Your task to perform on an android device: Go to calendar. Show me events next week Image 0: 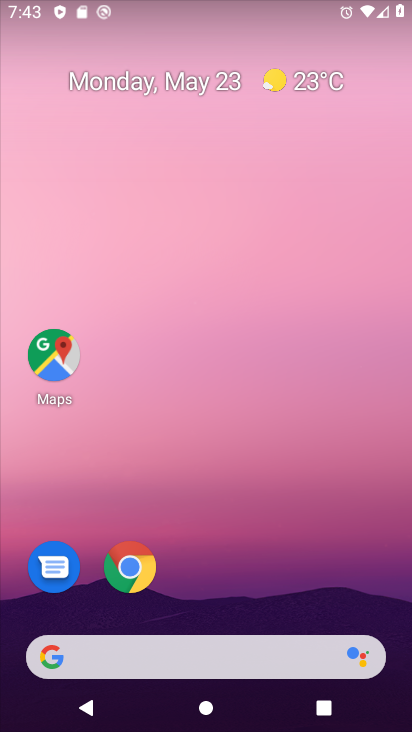
Step 0: drag from (255, 611) to (262, 271)
Your task to perform on an android device: Go to calendar. Show me events next week Image 1: 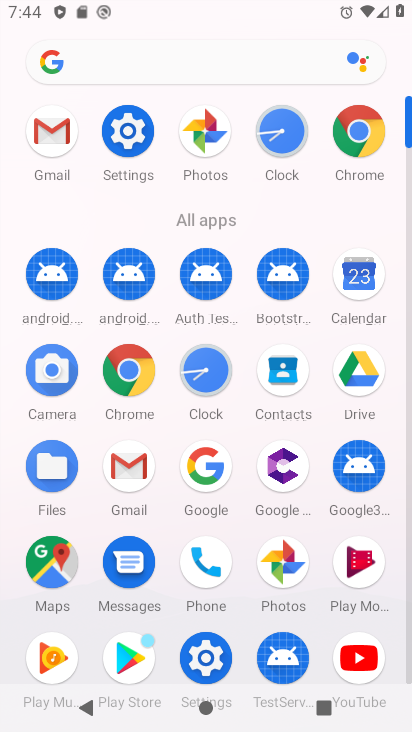
Step 1: click (348, 273)
Your task to perform on an android device: Go to calendar. Show me events next week Image 2: 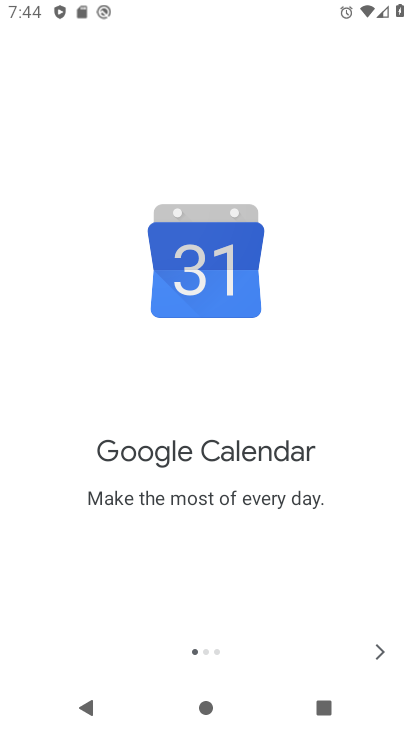
Step 2: click (368, 641)
Your task to perform on an android device: Go to calendar. Show me events next week Image 3: 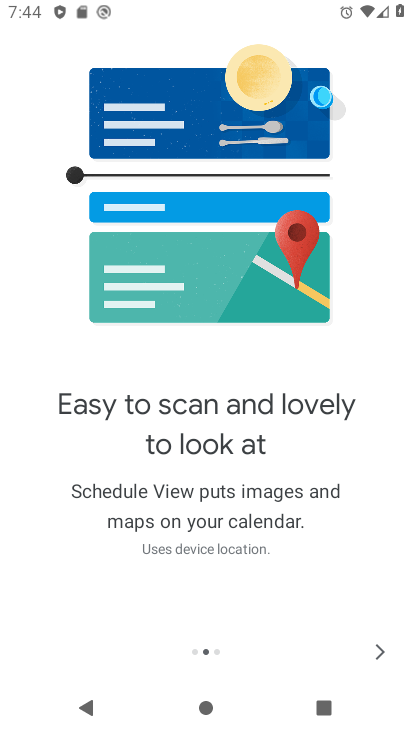
Step 3: click (367, 646)
Your task to perform on an android device: Go to calendar. Show me events next week Image 4: 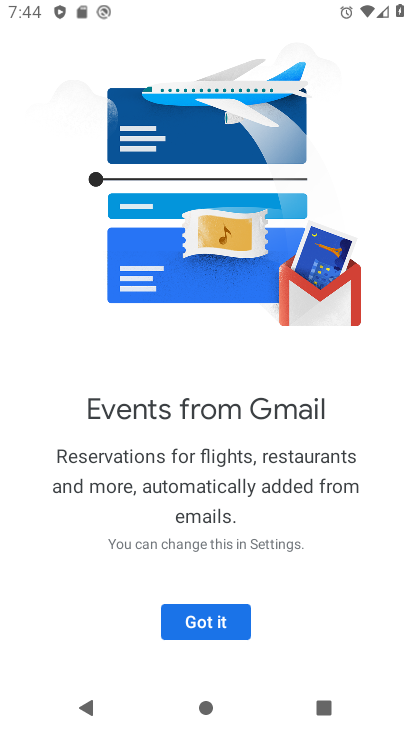
Step 4: click (200, 627)
Your task to perform on an android device: Go to calendar. Show me events next week Image 5: 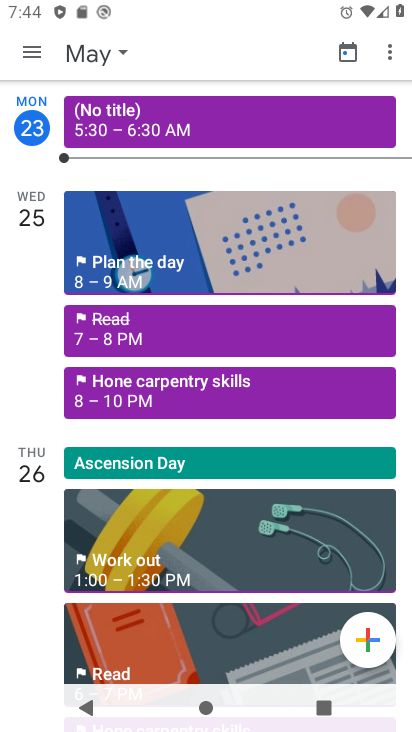
Step 5: click (24, 50)
Your task to perform on an android device: Go to calendar. Show me events next week Image 6: 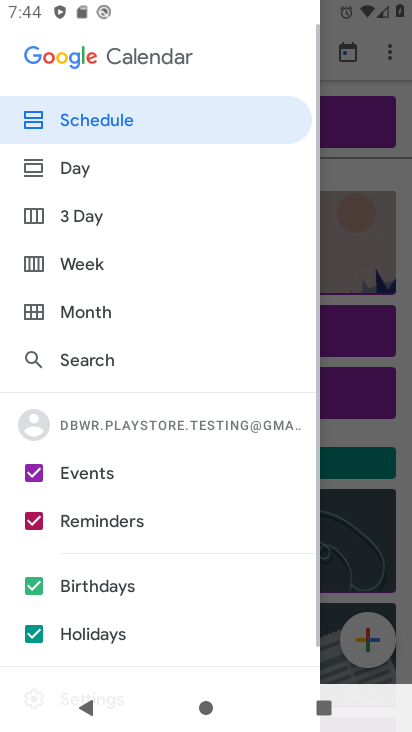
Step 6: click (100, 263)
Your task to perform on an android device: Go to calendar. Show me events next week Image 7: 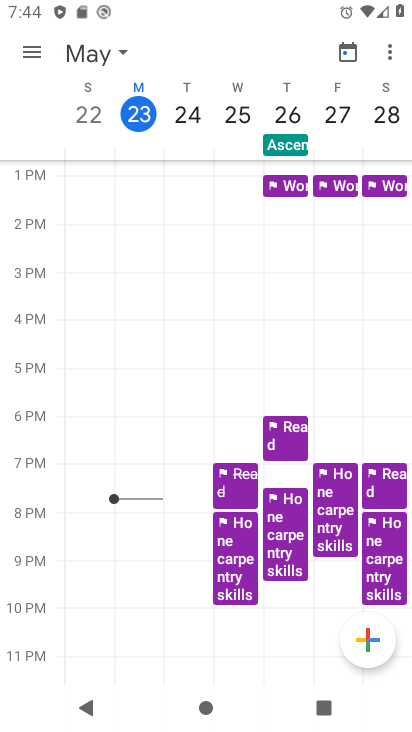
Step 7: task complete